Your task to perform on an android device: remove spam from my inbox in the gmail app Image 0: 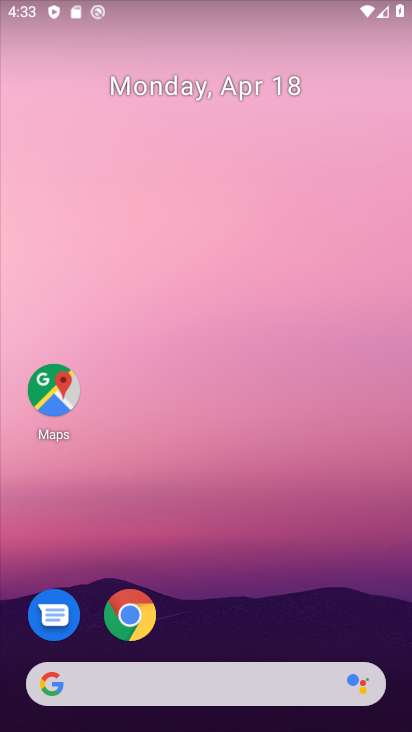
Step 0: drag from (273, 559) to (191, 105)
Your task to perform on an android device: remove spam from my inbox in the gmail app Image 1: 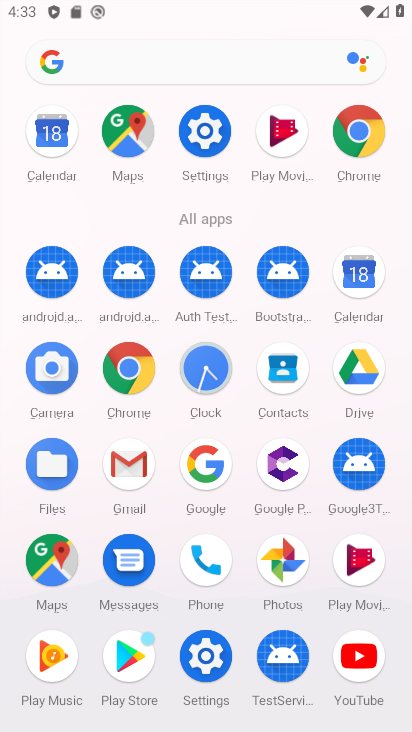
Step 1: click (121, 470)
Your task to perform on an android device: remove spam from my inbox in the gmail app Image 2: 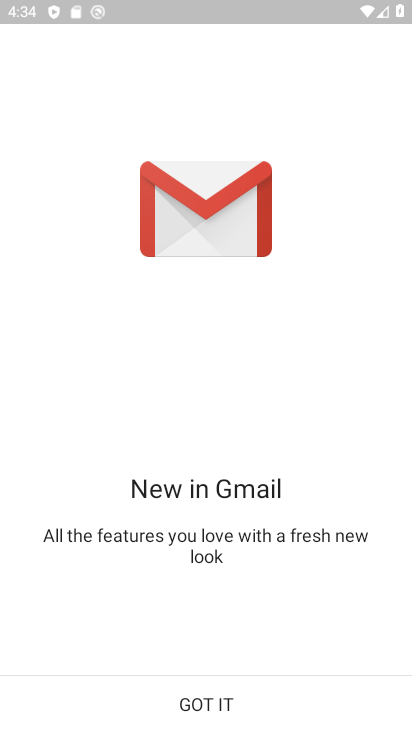
Step 2: click (237, 716)
Your task to perform on an android device: remove spam from my inbox in the gmail app Image 3: 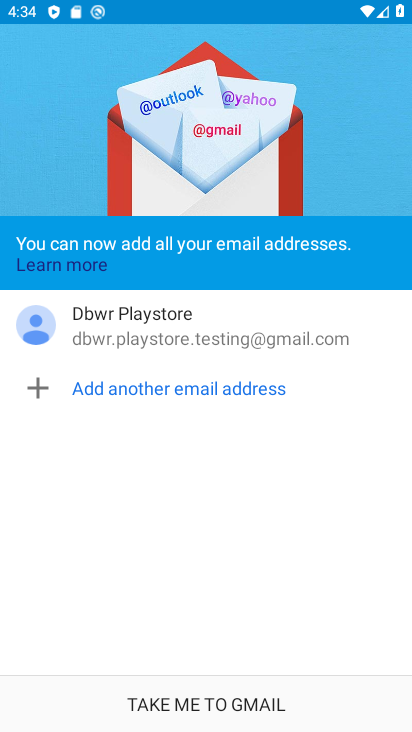
Step 3: click (247, 712)
Your task to perform on an android device: remove spam from my inbox in the gmail app Image 4: 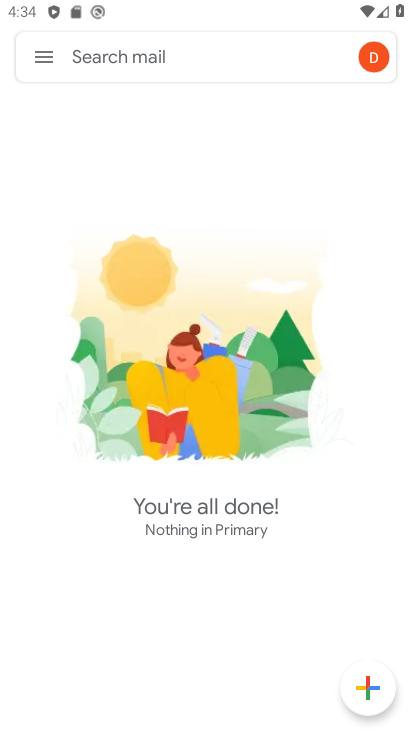
Step 4: click (42, 73)
Your task to perform on an android device: remove spam from my inbox in the gmail app Image 5: 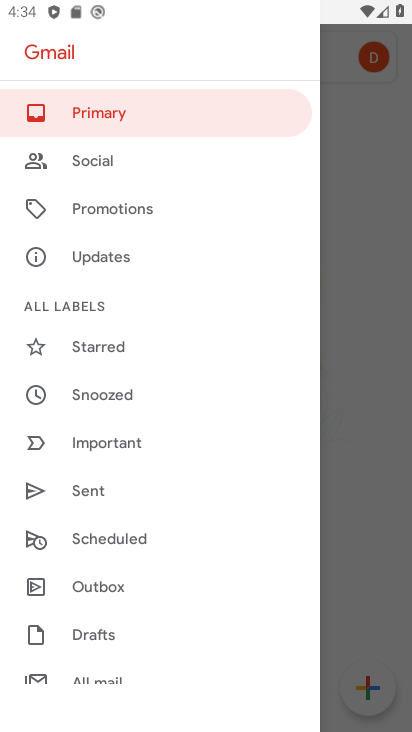
Step 5: drag from (130, 646) to (73, 187)
Your task to perform on an android device: remove spam from my inbox in the gmail app Image 6: 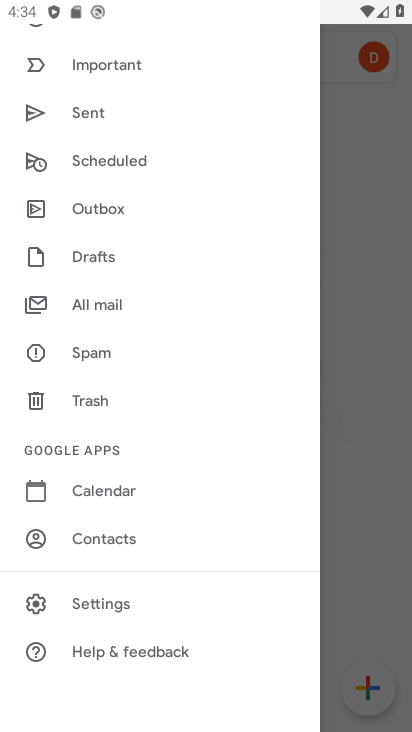
Step 6: click (102, 353)
Your task to perform on an android device: remove spam from my inbox in the gmail app Image 7: 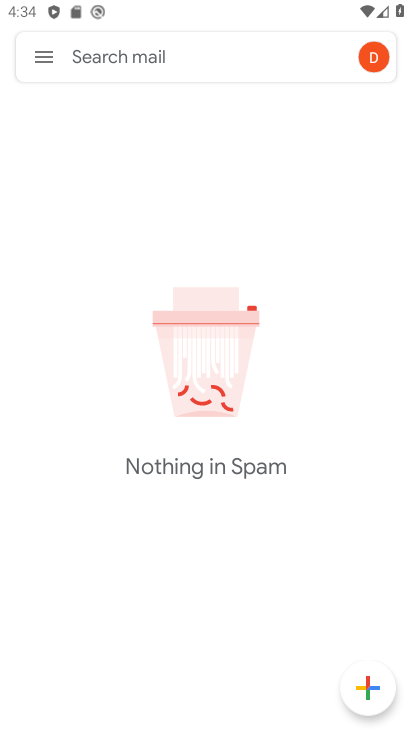
Step 7: task complete